Your task to perform on an android device: Open settings Image 0: 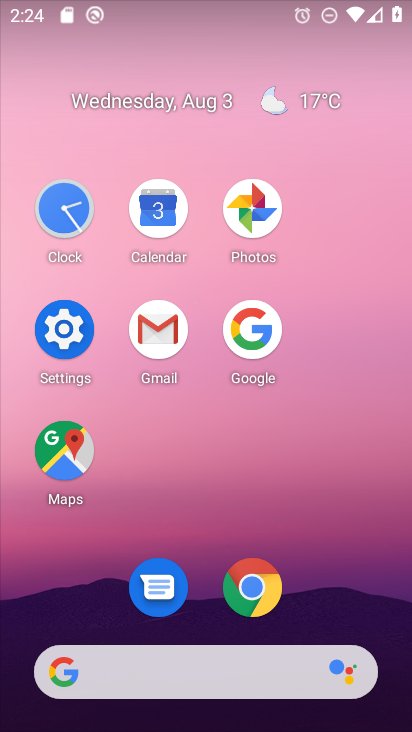
Step 0: click (71, 329)
Your task to perform on an android device: Open settings Image 1: 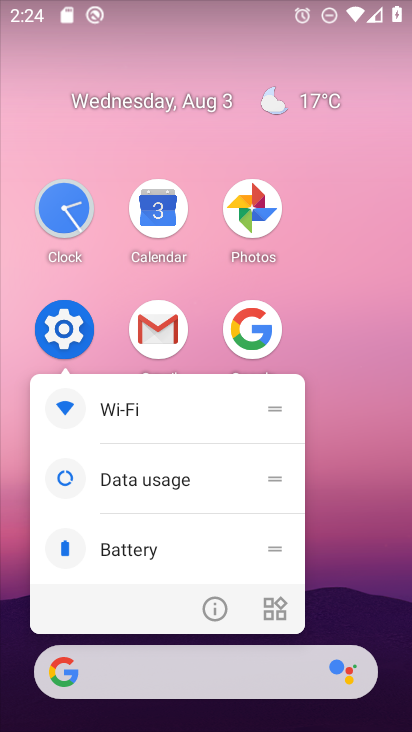
Step 1: click (51, 324)
Your task to perform on an android device: Open settings Image 2: 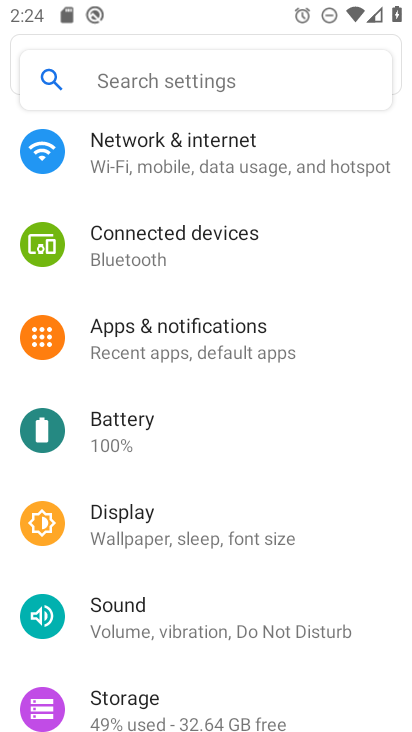
Step 2: task complete